Your task to perform on an android device: change text size in settings app Image 0: 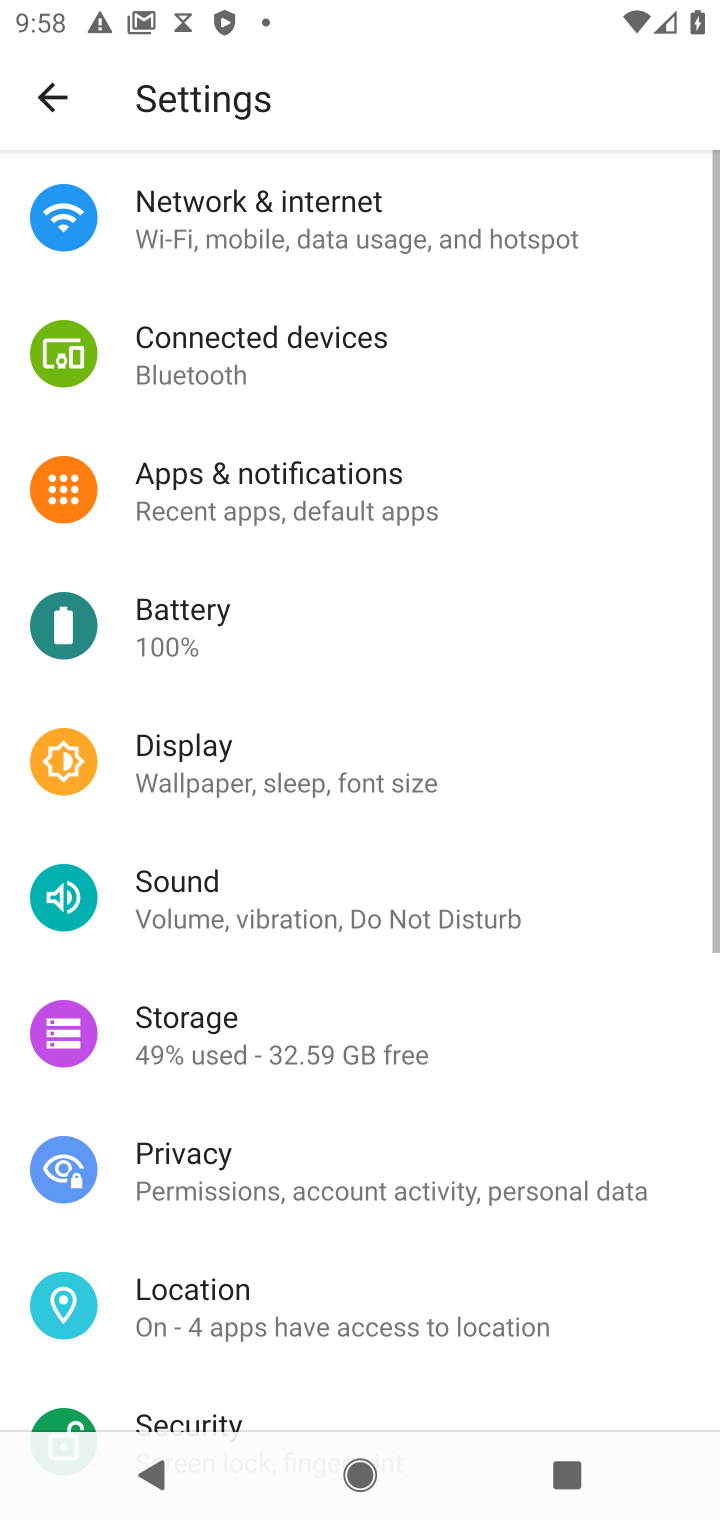
Step 0: click (295, 773)
Your task to perform on an android device: change text size in settings app Image 1: 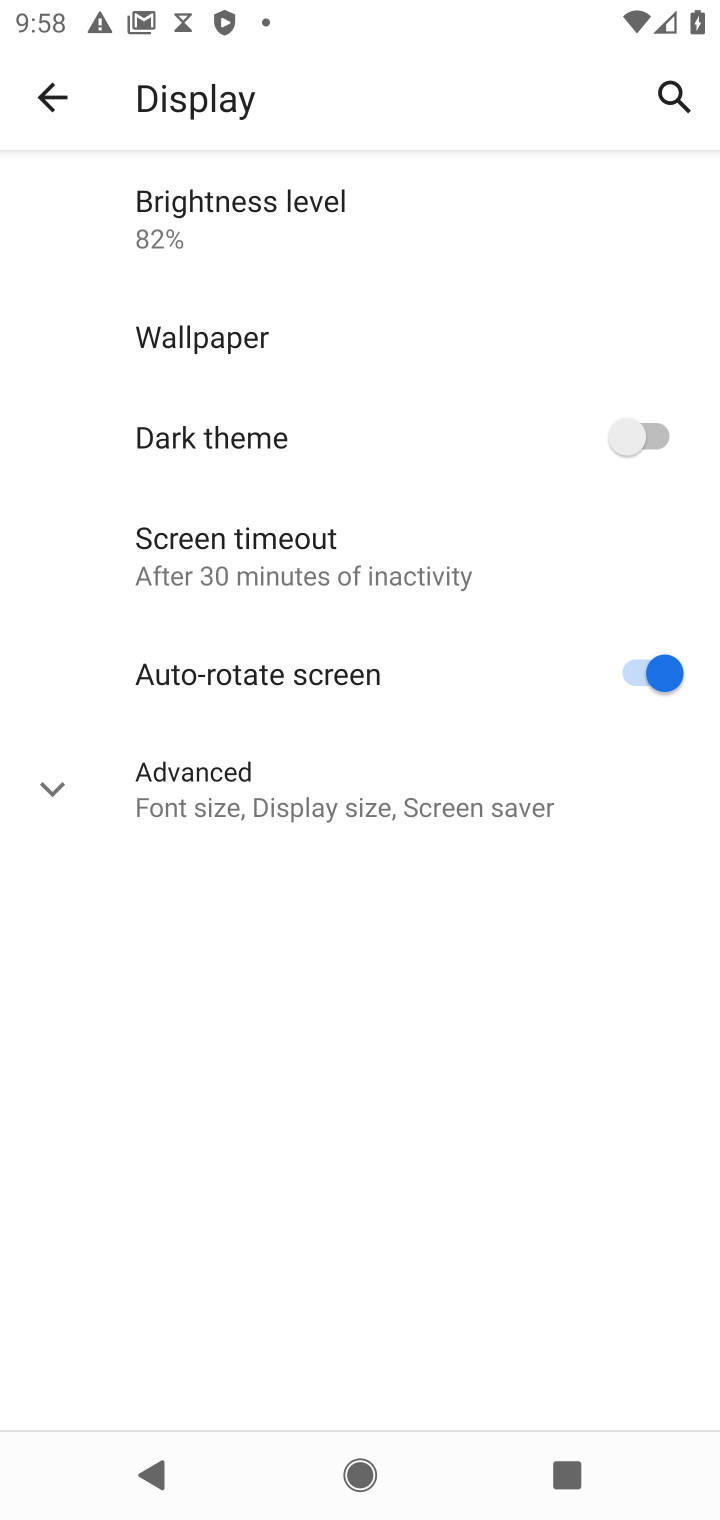
Step 1: click (144, 805)
Your task to perform on an android device: change text size in settings app Image 2: 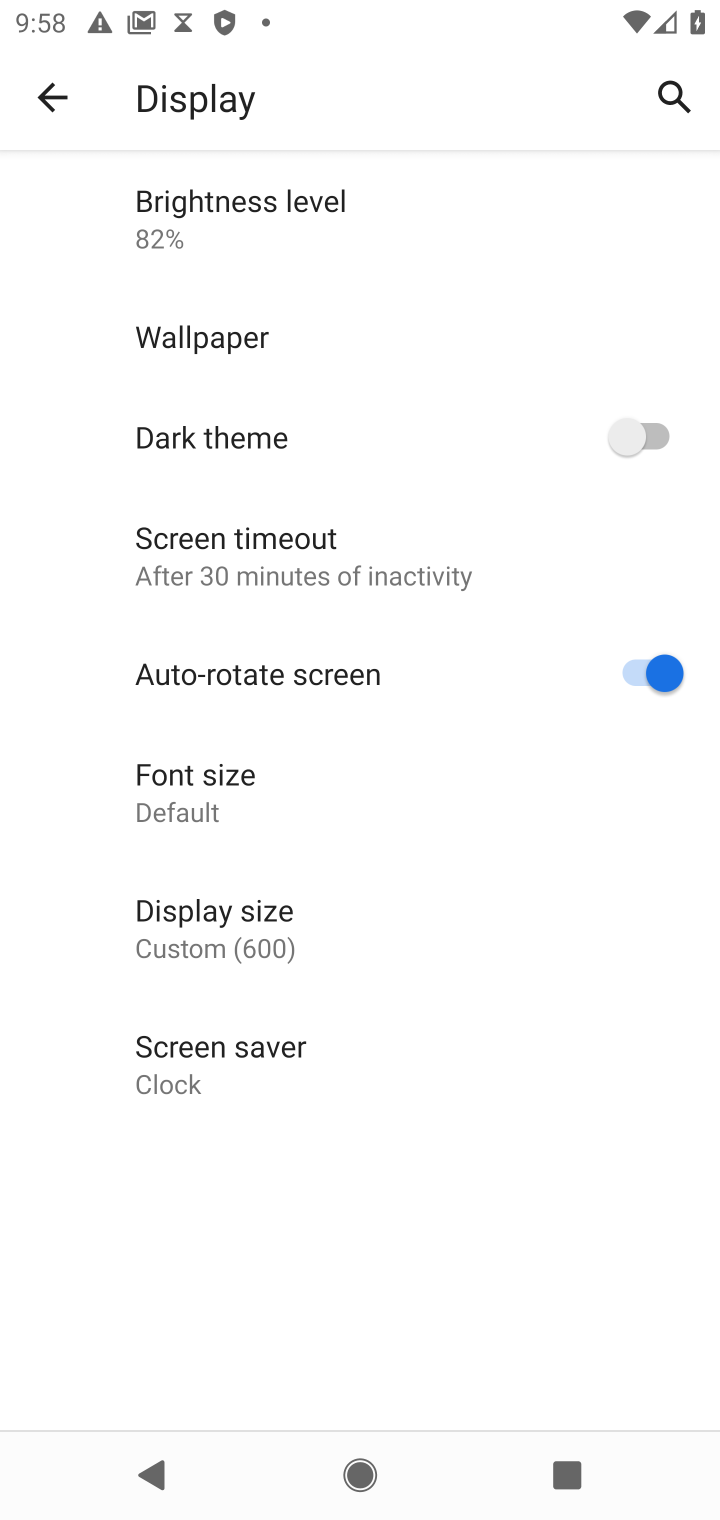
Step 2: click (291, 793)
Your task to perform on an android device: change text size in settings app Image 3: 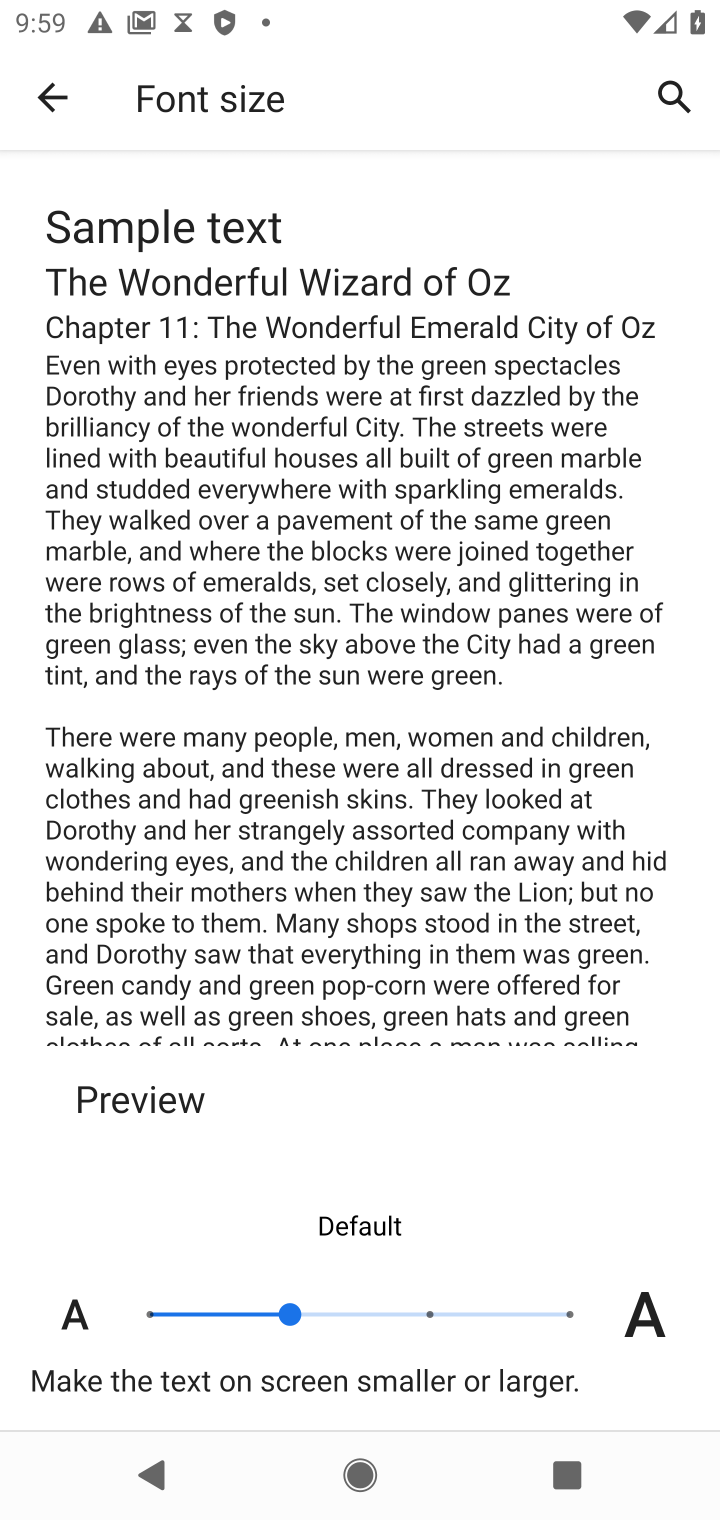
Step 3: click (419, 1327)
Your task to perform on an android device: change text size in settings app Image 4: 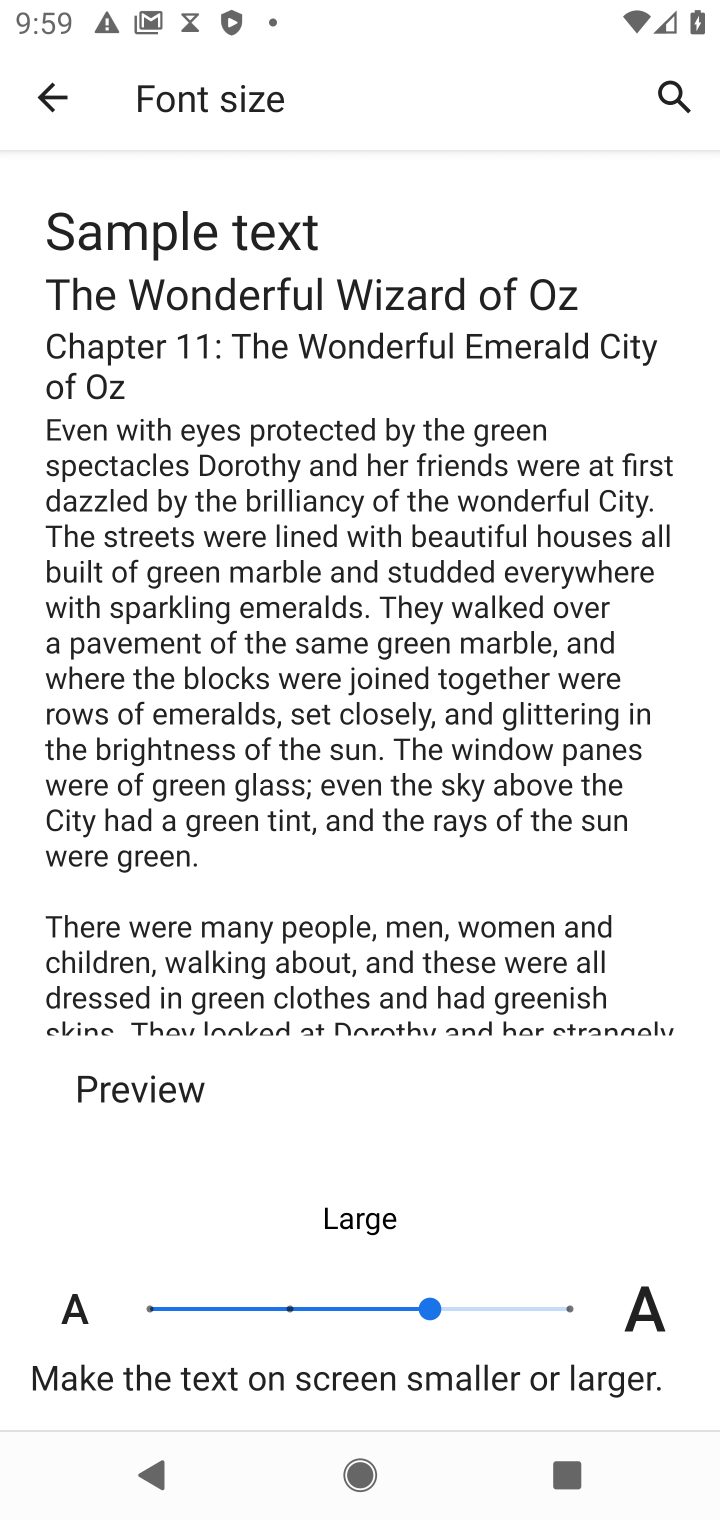
Step 4: click (571, 1303)
Your task to perform on an android device: change text size in settings app Image 5: 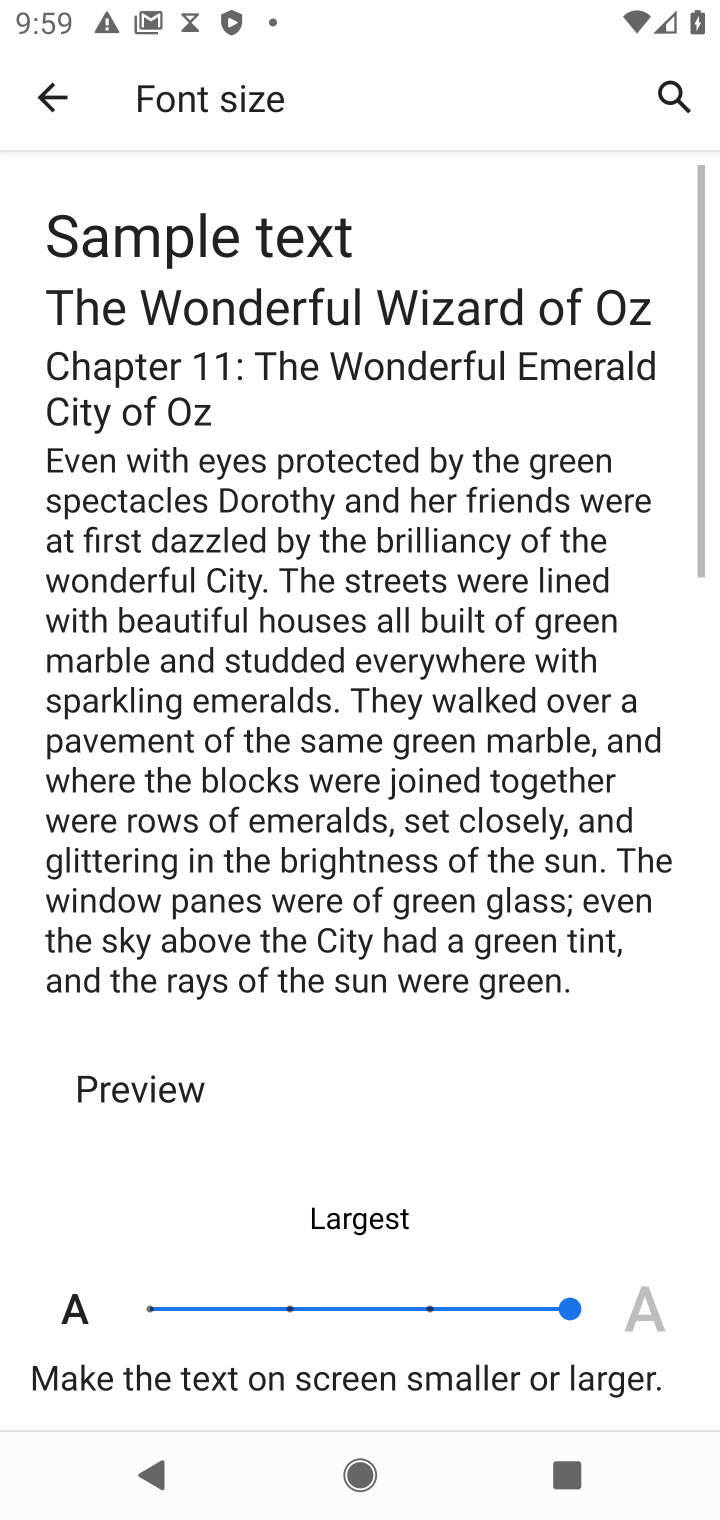
Step 5: task complete